Your task to perform on an android device: Go to eBay Image 0: 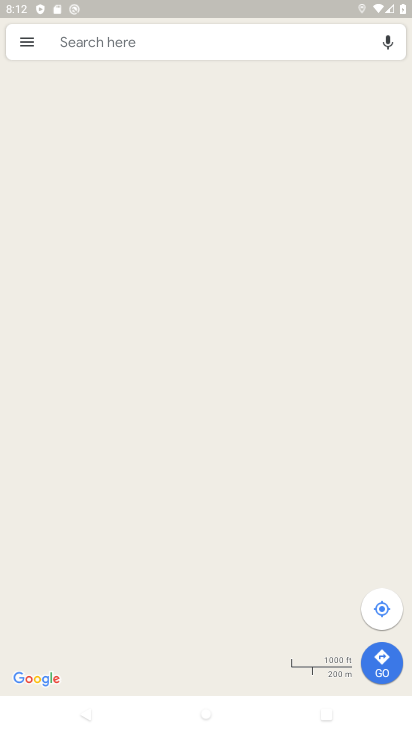
Step 0: press home button
Your task to perform on an android device: Go to eBay Image 1: 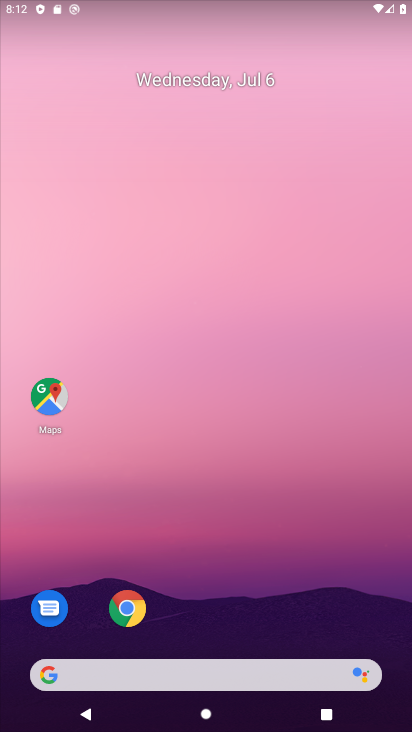
Step 1: drag from (290, 620) to (179, 10)
Your task to perform on an android device: Go to eBay Image 2: 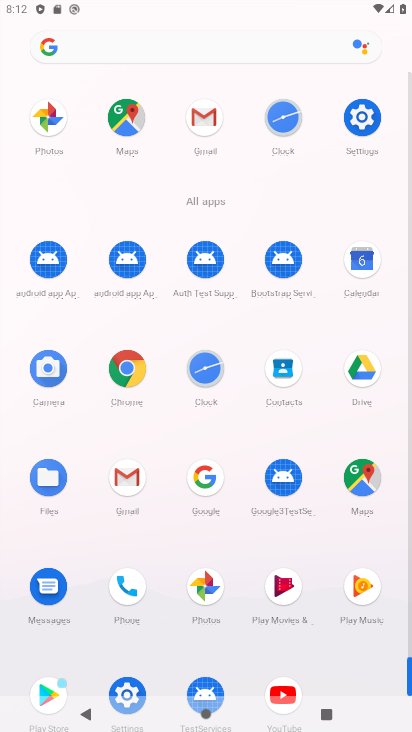
Step 2: drag from (256, 635) to (279, 264)
Your task to perform on an android device: Go to eBay Image 3: 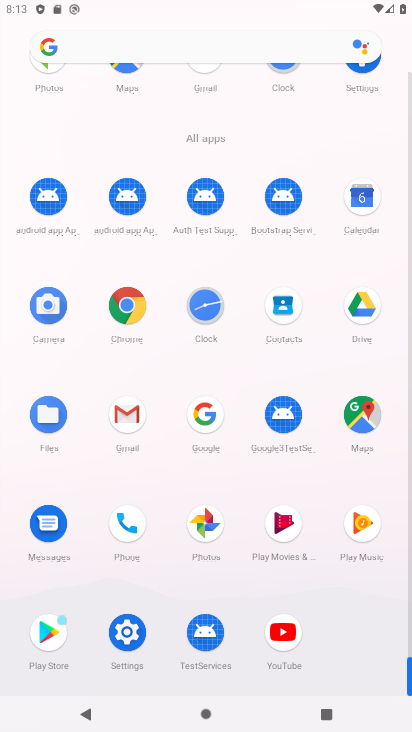
Step 3: click (130, 298)
Your task to perform on an android device: Go to eBay Image 4: 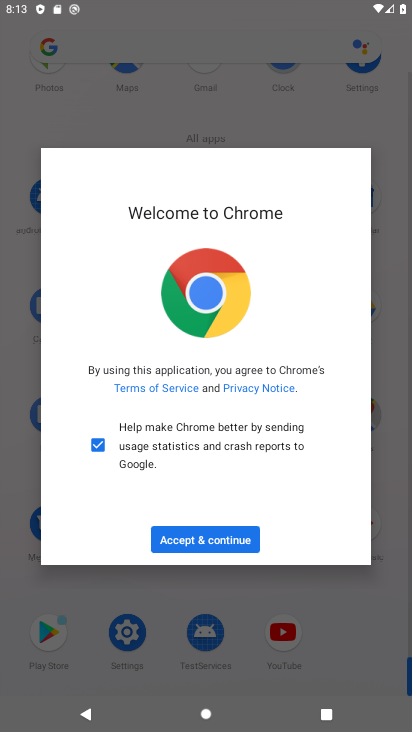
Step 4: click (261, 541)
Your task to perform on an android device: Go to eBay Image 5: 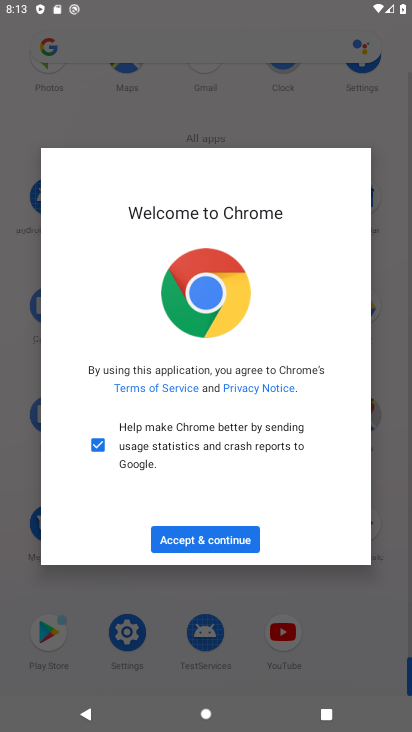
Step 5: click (233, 536)
Your task to perform on an android device: Go to eBay Image 6: 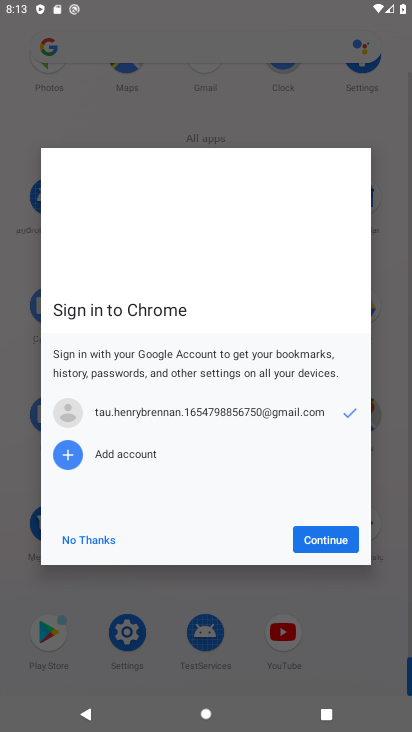
Step 6: click (335, 544)
Your task to perform on an android device: Go to eBay Image 7: 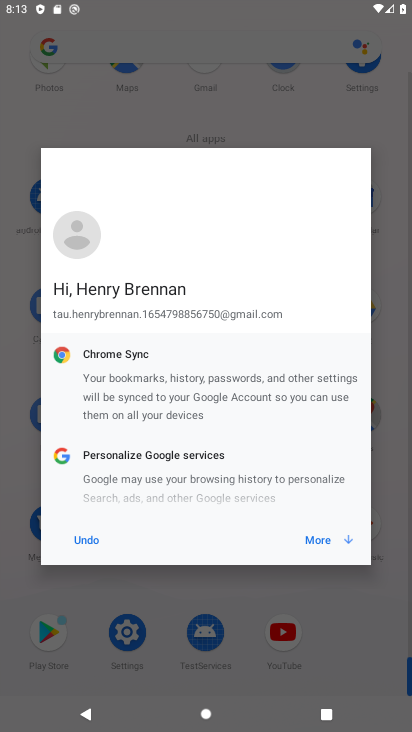
Step 7: click (335, 544)
Your task to perform on an android device: Go to eBay Image 8: 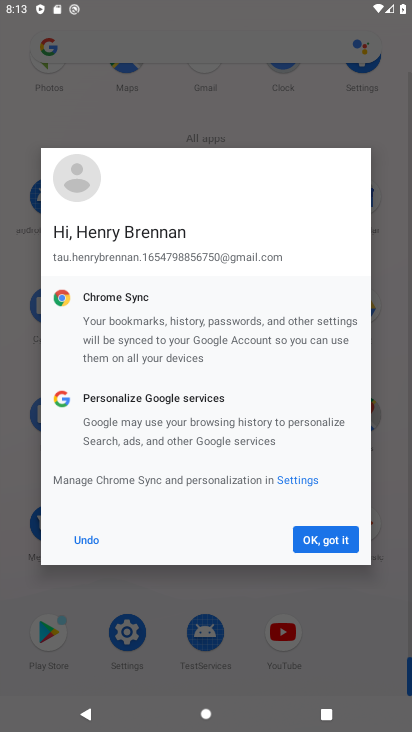
Step 8: click (335, 544)
Your task to perform on an android device: Go to eBay Image 9: 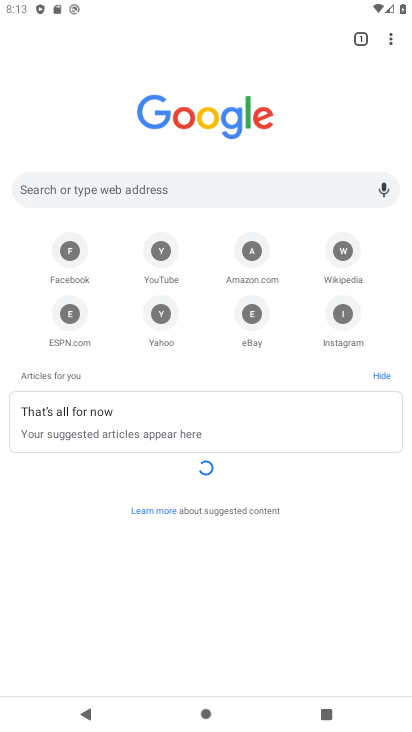
Step 9: click (214, 189)
Your task to perform on an android device: Go to eBay Image 10: 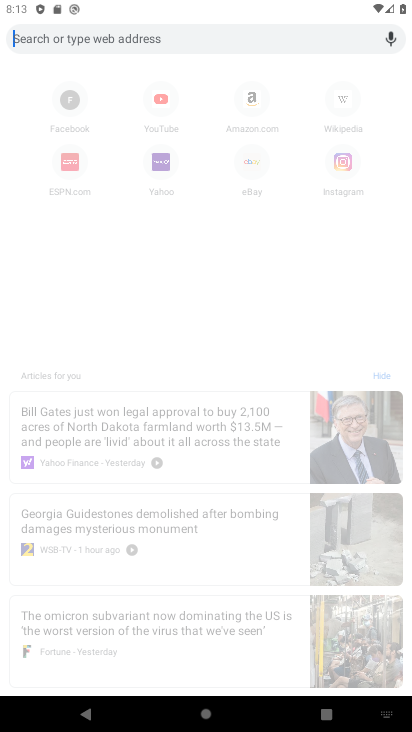
Step 10: type "ebay"
Your task to perform on an android device: Go to eBay Image 11: 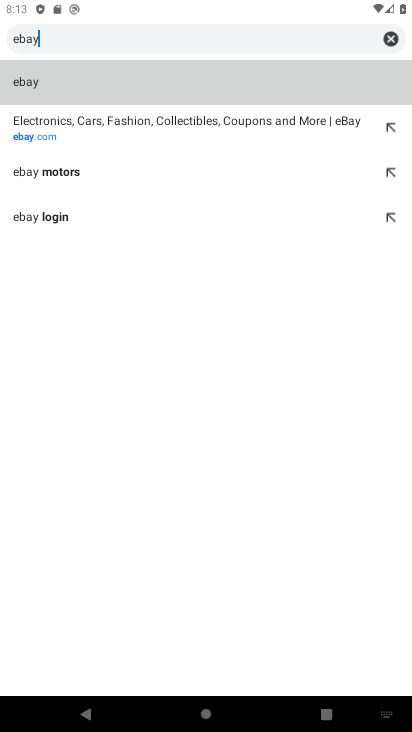
Step 11: type ""
Your task to perform on an android device: Go to eBay Image 12: 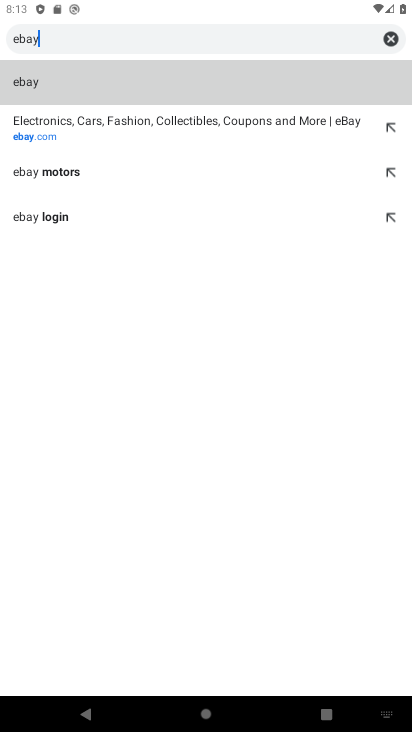
Step 12: click (261, 77)
Your task to perform on an android device: Go to eBay Image 13: 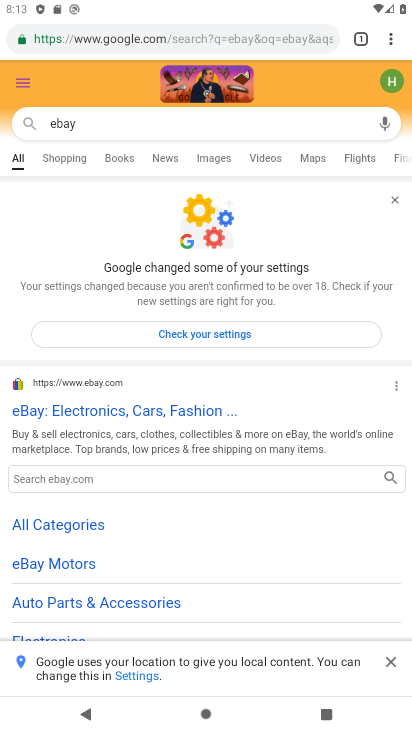
Step 13: click (119, 414)
Your task to perform on an android device: Go to eBay Image 14: 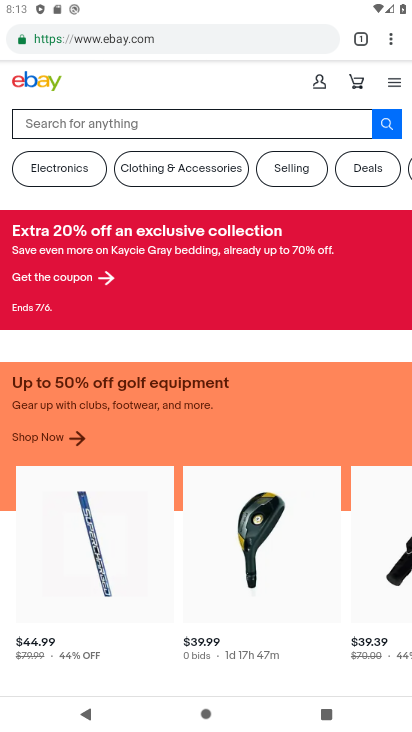
Step 14: task complete